Your task to perform on an android device: Is it going to rain today? Image 0: 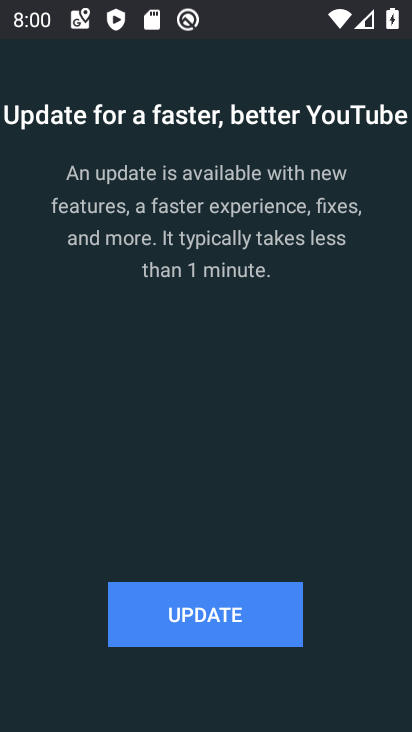
Step 0: press home button
Your task to perform on an android device: Is it going to rain today? Image 1: 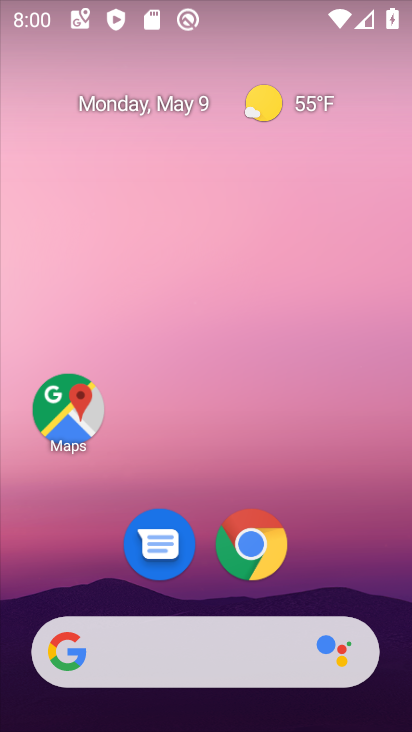
Step 1: drag from (189, 589) to (150, 200)
Your task to perform on an android device: Is it going to rain today? Image 2: 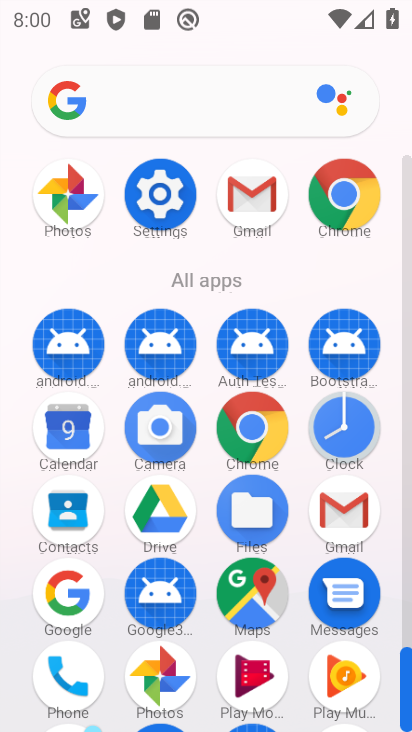
Step 2: click (91, 598)
Your task to perform on an android device: Is it going to rain today? Image 3: 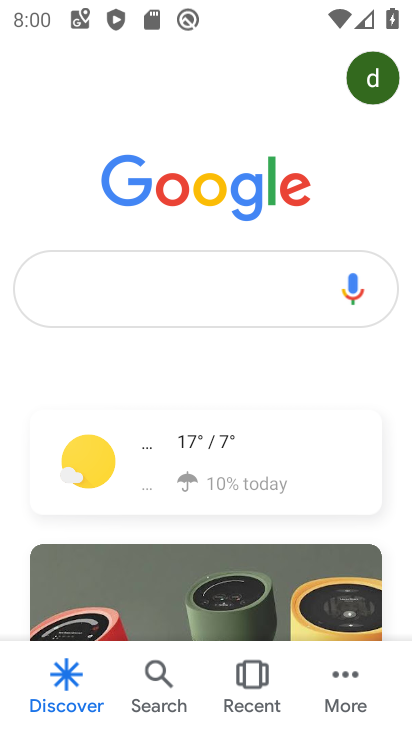
Step 3: click (192, 450)
Your task to perform on an android device: Is it going to rain today? Image 4: 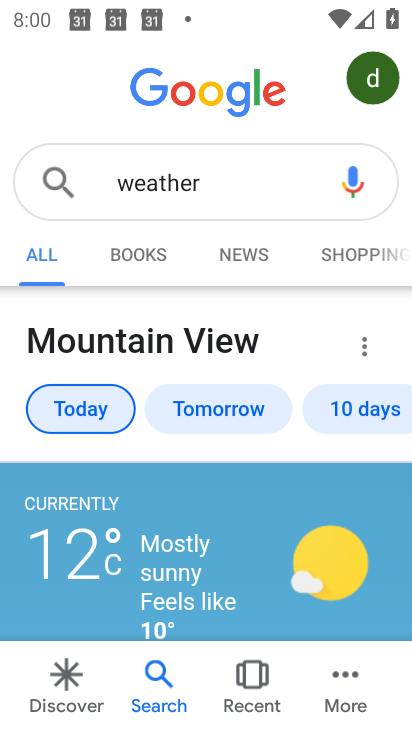
Step 4: task complete